Your task to perform on an android device: turn off wifi Image 0: 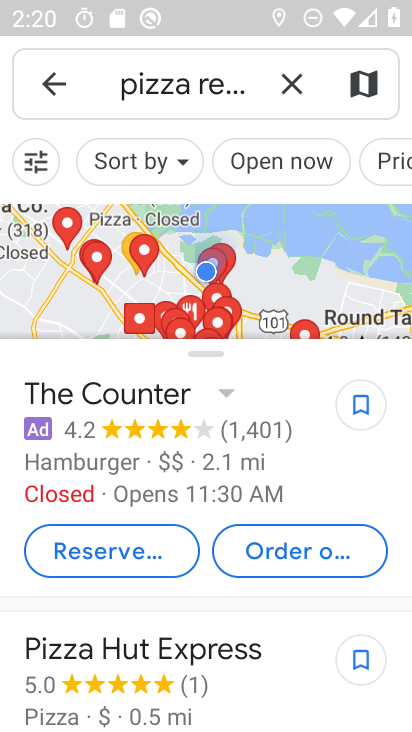
Step 0: press home button
Your task to perform on an android device: turn off wifi Image 1: 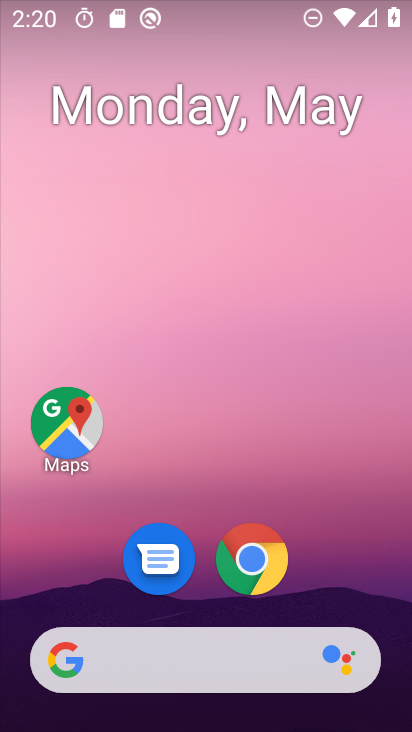
Step 1: drag from (343, 613) to (312, 0)
Your task to perform on an android device: turn off wifi Image 2: 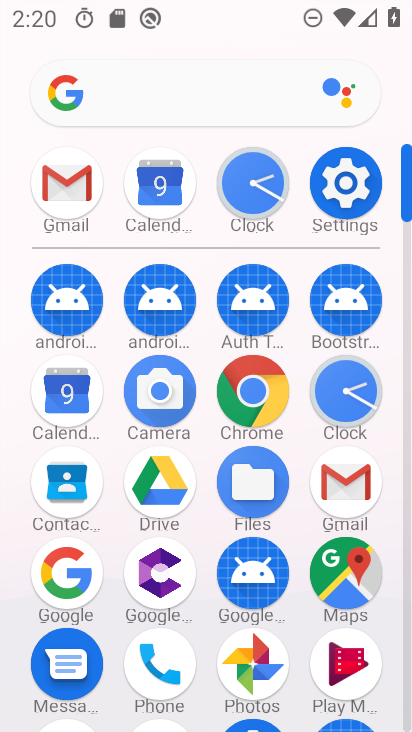
Step 2: click (349, 186)
Your task to perform on an android device: turn off wifi Image 3: 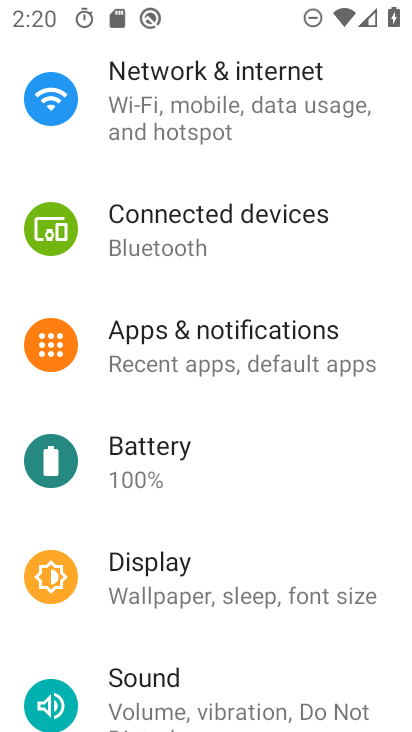
Step 3: click (170, 105)
Your task to perform on an android device: turn off wifi Image 4: 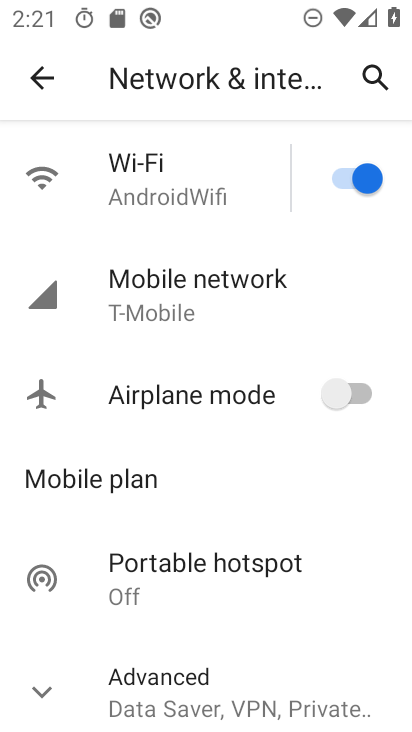
Step 4: click (368, 192)
Your task to perform on an android device: turn off wifi Image 5: 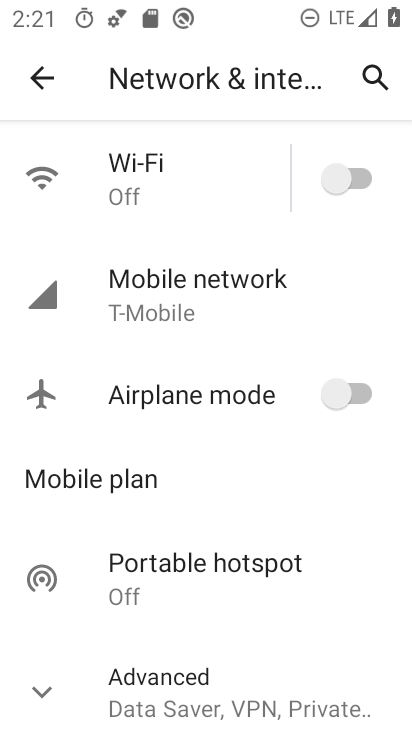
Step 5: task complete